Your task to perform on an android device: refresh tabs in the chrome app Image 0: 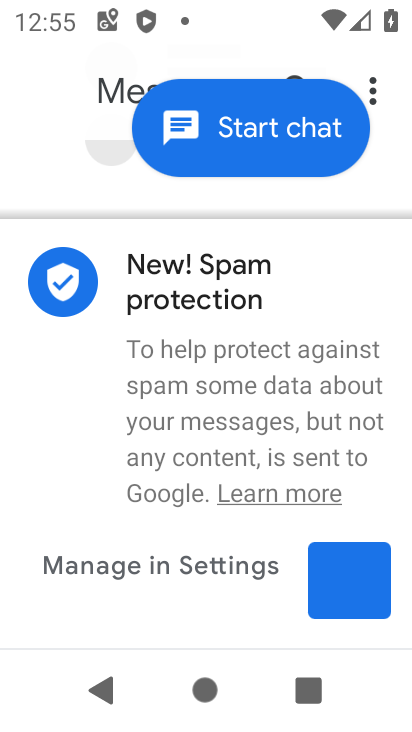
Step 0: press home button
Your task to perform on an android device: refresh tabs in the chrome app Image 1: 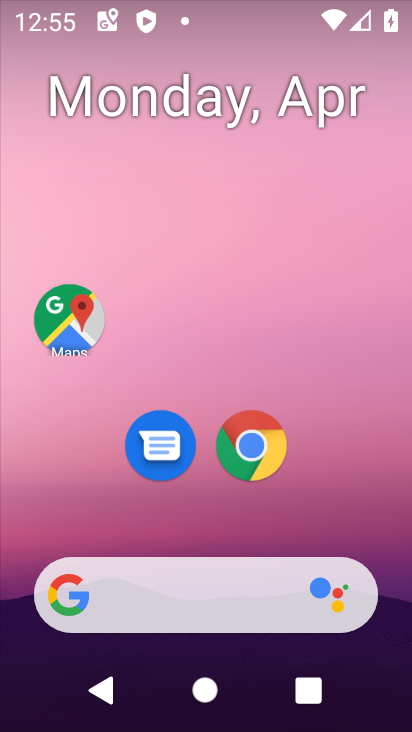
Step 1: drag from (373, 512) to (366, 94)
Your task to perform on an android device: refresh tabs in the chrome app Image 2: 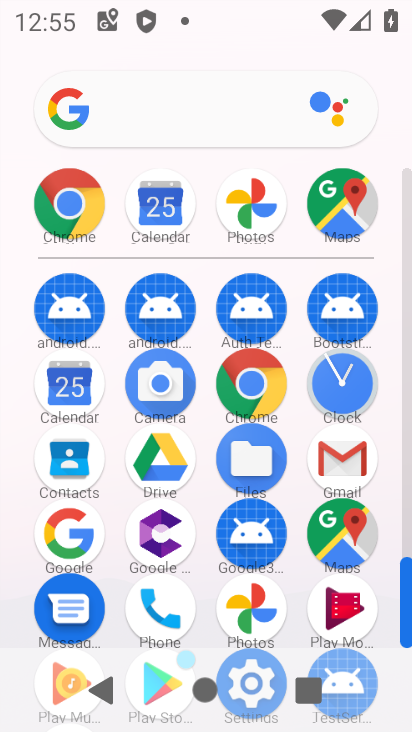
Step 2: click (264, 390)
Your task to perform on an android device: refresh tabs in the chrome app Image 3: 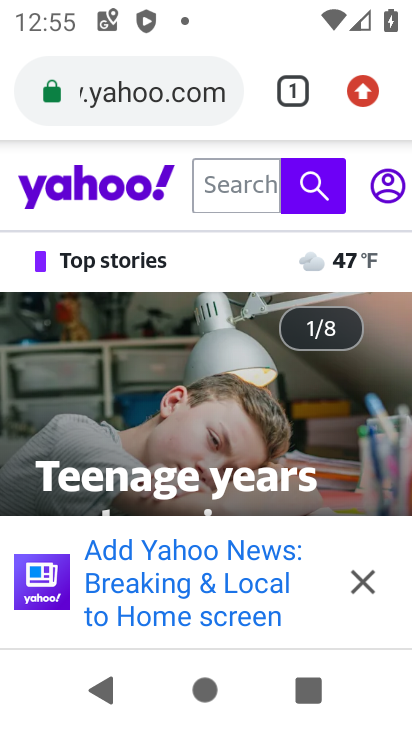
Step 3: click (368, 90)
Your task to perform on an android device: refresh tabs in the chrome app Image 4: 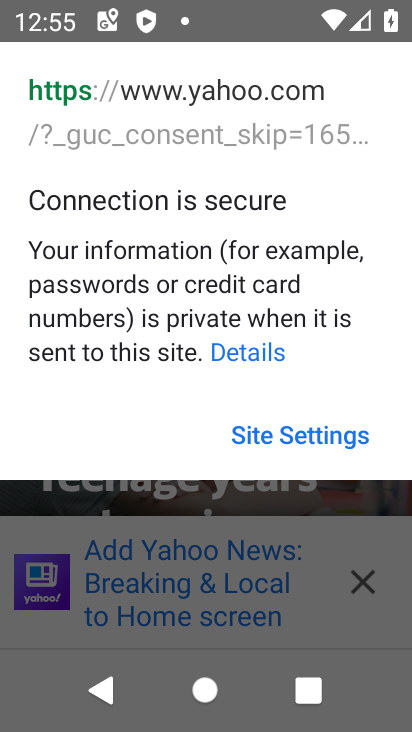
Step 4: click (242, 436)
Your task to perform on an android device: refresh tabs in the chrome app Image 5: 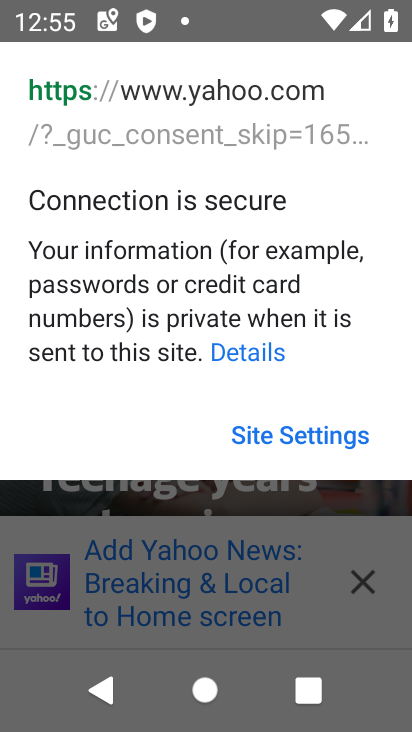
Step 5: click (261, 437)
Your task to perform on an android device: refresh tabs in the chrome app Image 6: 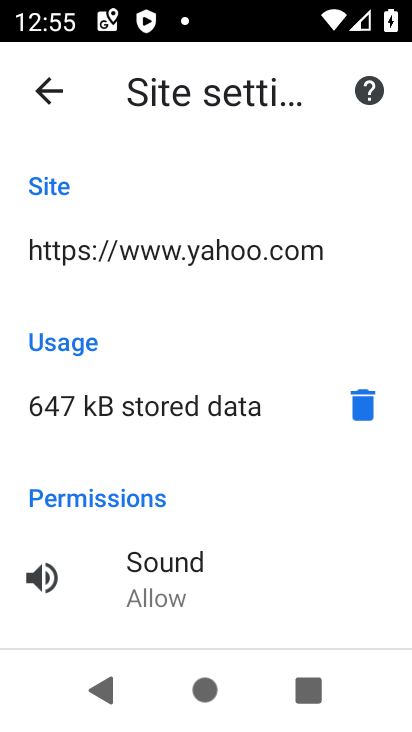
Step 6: click (49, 95)
Your task to perform on an android device: refresh tabs in the chrome app Image 7: 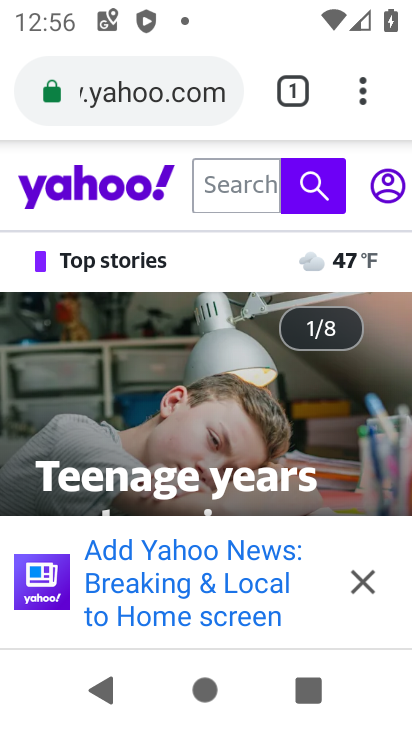
Step 7: click (360, 79)
Your task to perform on an android device: refresh tabs in the chrome app Image 8: 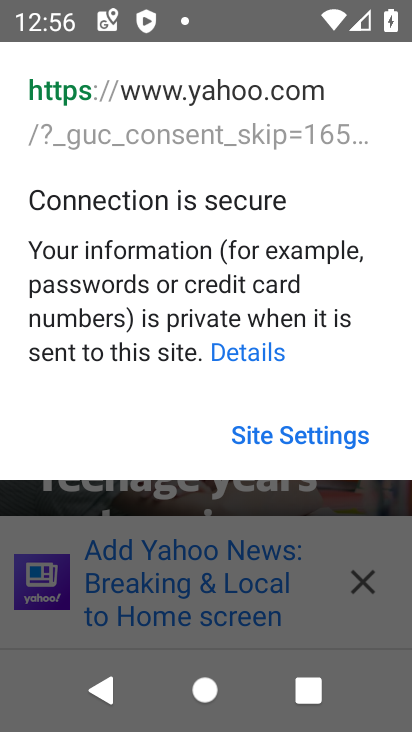
Step 8: click (295, 424)
Your task to perform on an android device: refresh tabs in the chrome app Image 9: 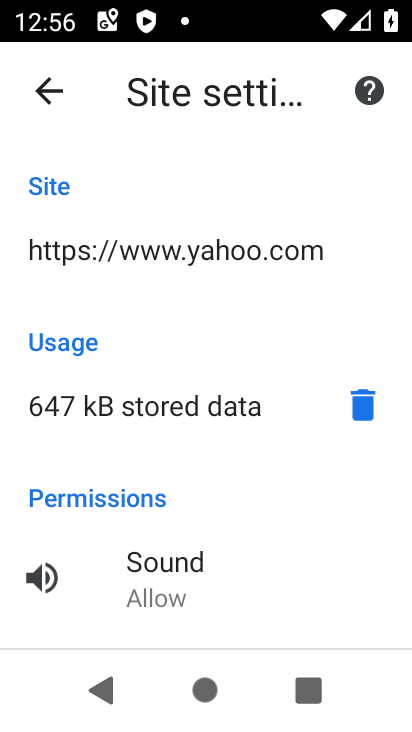
Step 9: click (45, 91)
Your task to perform on an android device: refresh tabs in the chrome app Image 10: 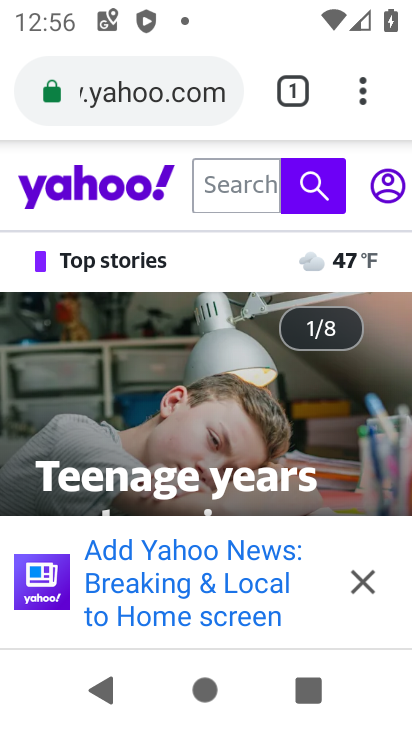
Step 10: click (366, 79)
Your task to perform on an android device: refresh tabs in the chrome app Image 11: 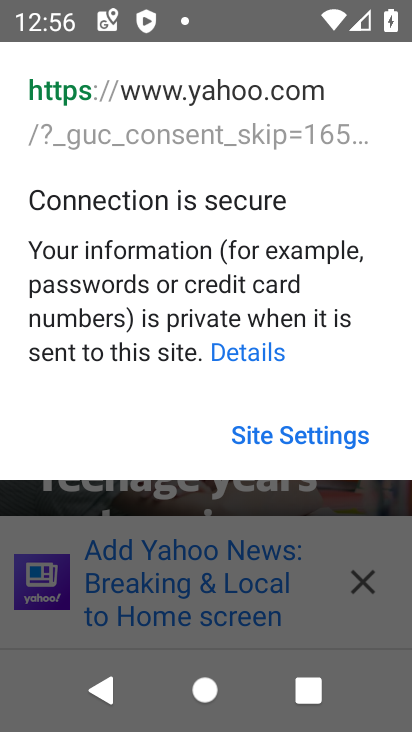
Step 11: click (285, 438)
Your task to perform on an android device: refresh tabs in the chrome app Image 12: 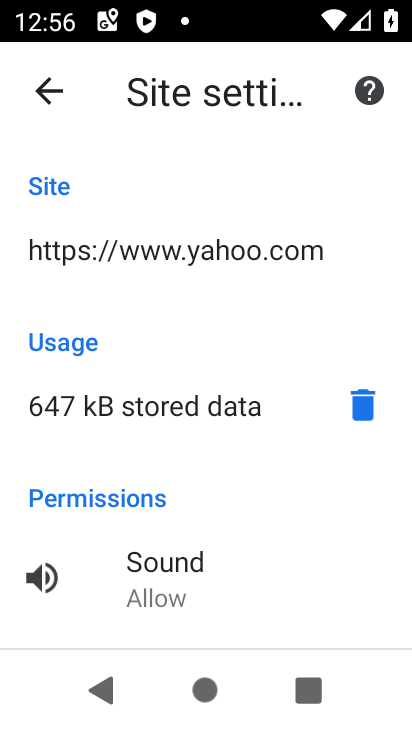
Step 12: click (35, 90)
Your task to perform on an android device: refresh tabs in the chrome app Image 13: 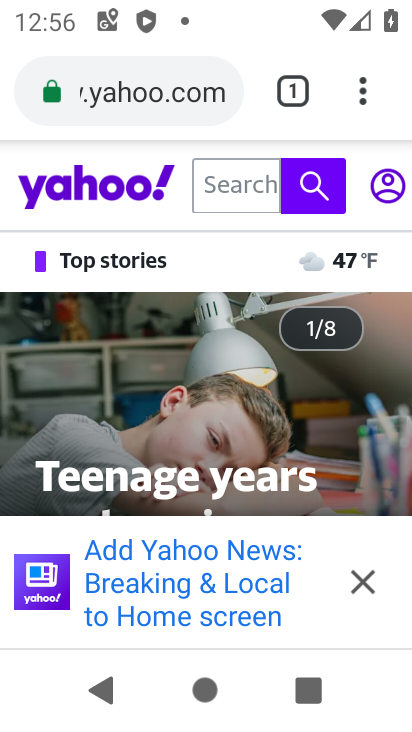
Step 13: click (364, 98)
Your task to perform on an android device: refresh tabs in the chrome app Image 14: 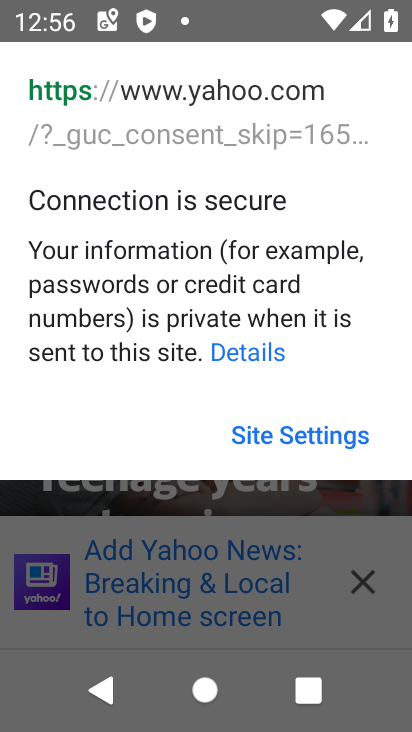
Step 14: click (256, 431)
Your task to perform on an android device: refresh tabs in the chrome app Image 15: 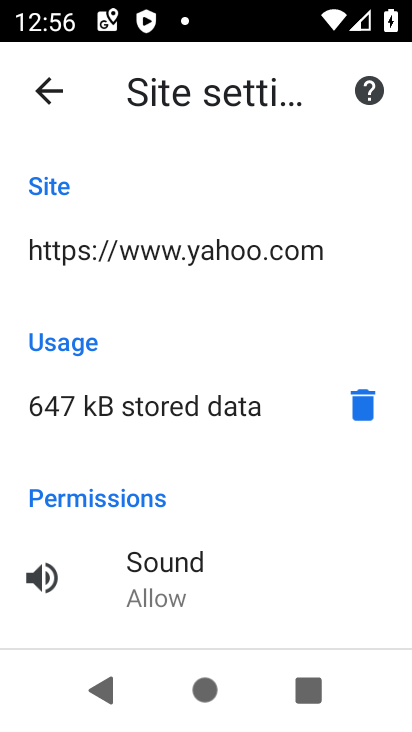
Step 15: task complete